Your task to perform on an android device: check storage Image 0: 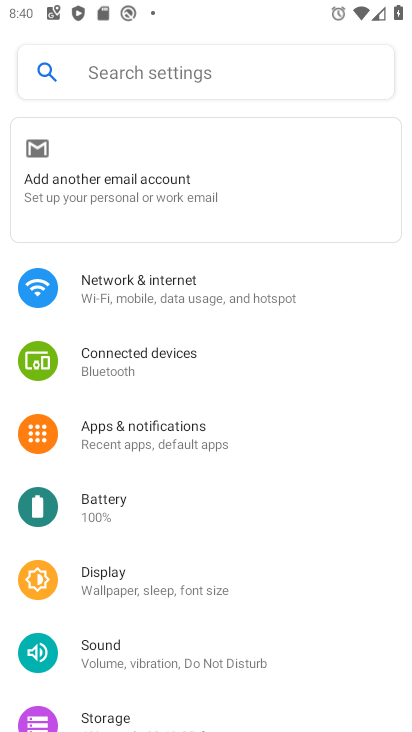
Step 0: press home button
Your task to perform on an android device: check storage Image 1: 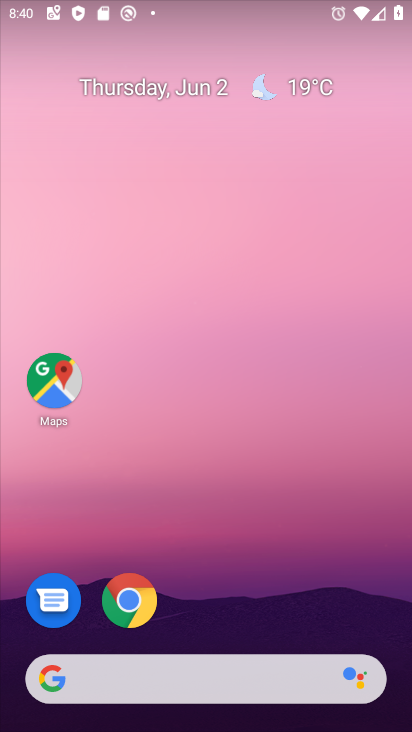
Step 1: drag from (367, 629) to (372, 259)
Your task to perform on an android device: check storage Image 2: 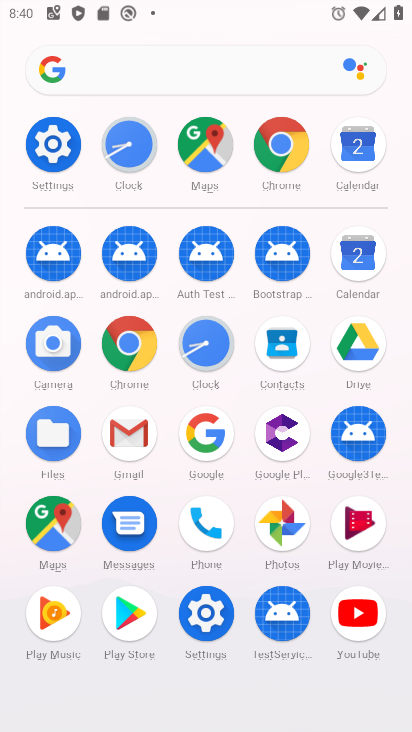
Step 2: click (73, 158)
Your task to perform on an android device: check storage Image 3: 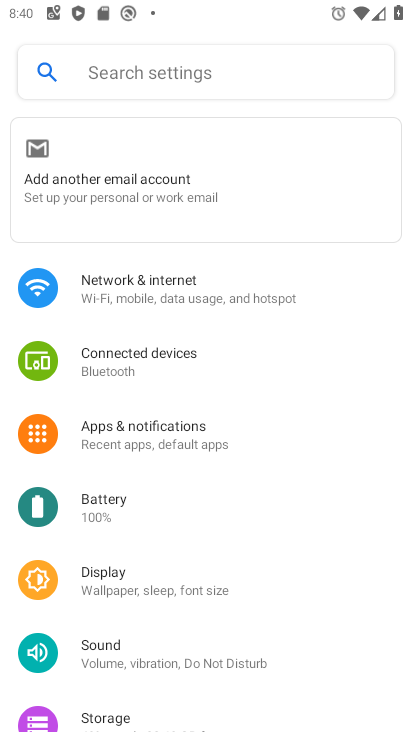
Step 3: drag from (293, 462) to (309, 350)
Your task to perform on an android device: check storage Image 4: 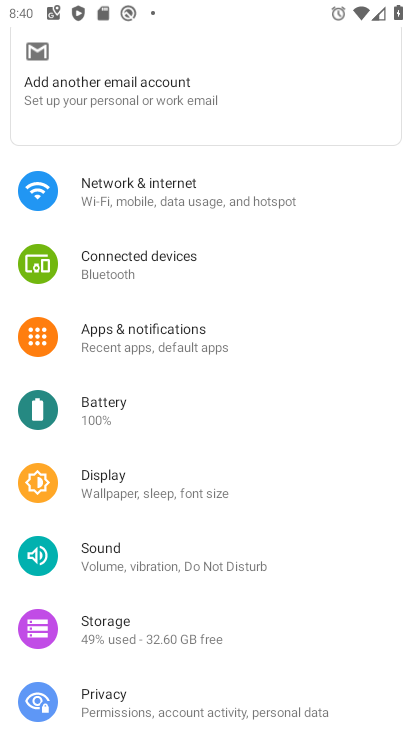
Step 4: drag from (304, 460) to (307, 319)
Your task to perform on an android device: check storage Image 5: 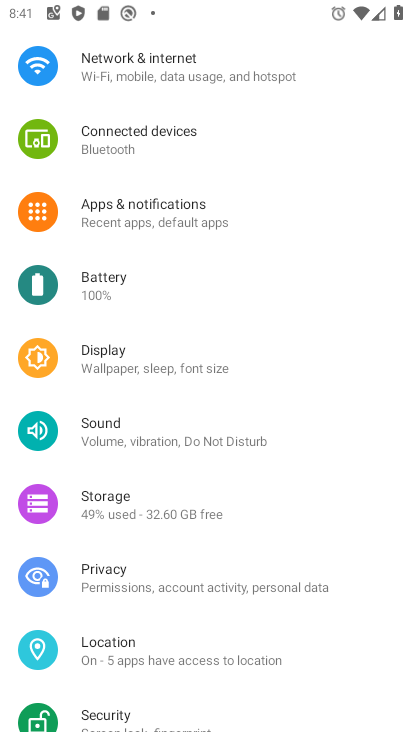
Step 5: drag from (335, 465) to (338, 353)
Your task to perform on an android device: check storage Image 6: 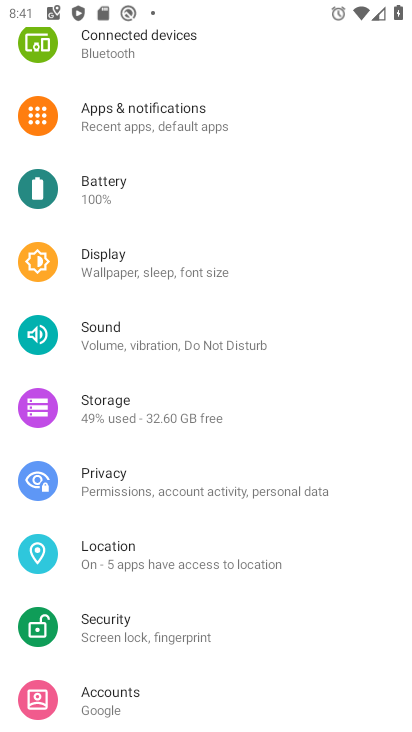
Step 6: drag from (344, 520) to (350, 350)
Your task to perform on an android device: check storage Image 7: 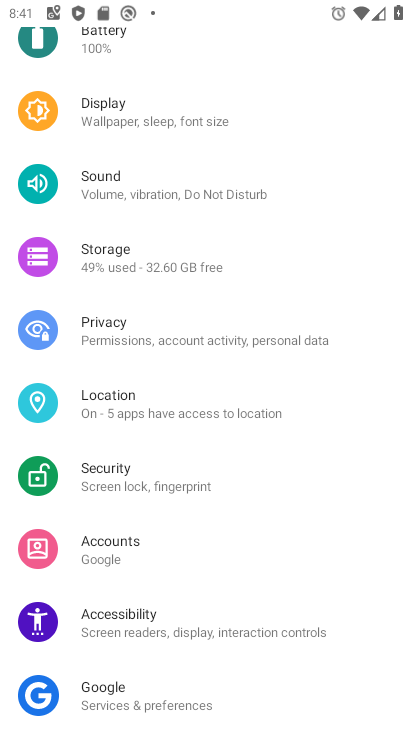
Step 7: drag from (346, 510) to (398, 198)
Your task to perform on an android device: check storage Image 8: 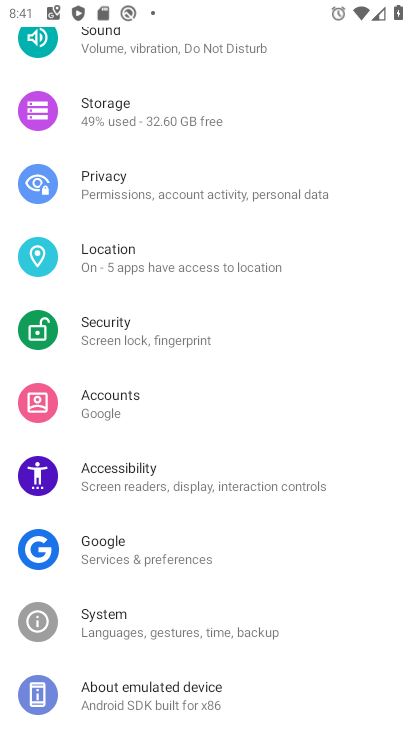
Step 8: drag from (357, 273) to (359, 371)
Your task to perform on an android device: check storage Image 9: 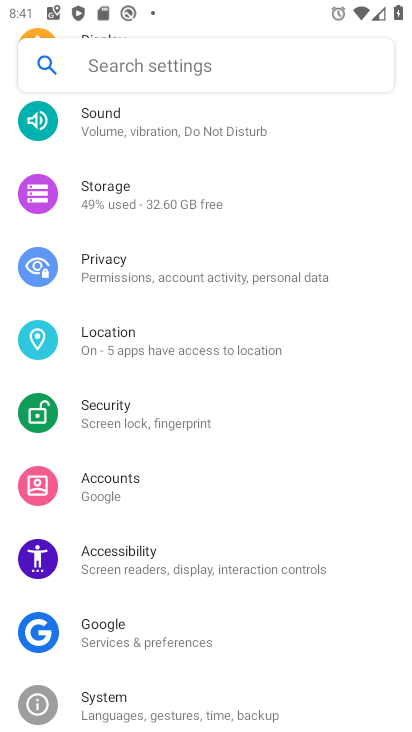
Step 9: drag from (357, 221) to (359, 330)
Your task to perform on an android device: check storage Image 10: 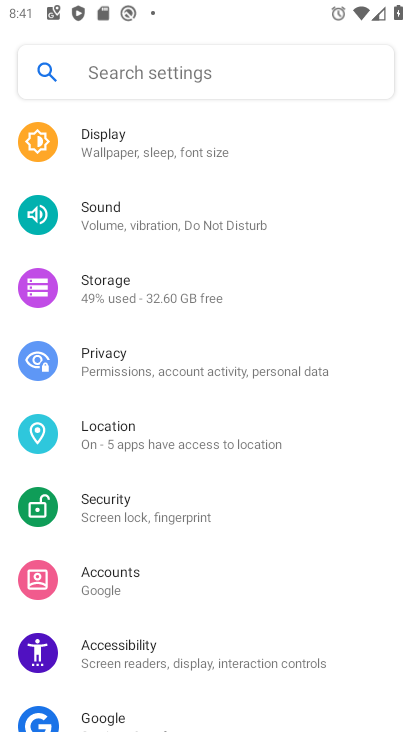
Step 10: drag from (357, 245) to (354, 346)
Your task to perform on an android device: check storage Image 11: 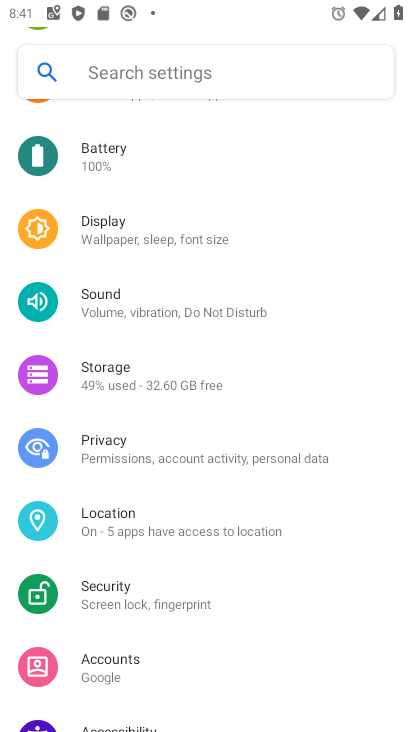
Step 11: click (219, 379)
Your task to perform on an android device: check storage Image 12: 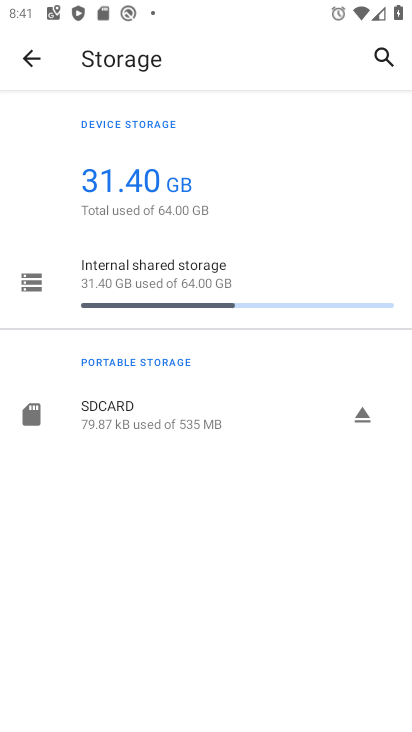
Step 12: task complete